Your task to perform on an android device: remove spam from my inbox in the gmail app Image 0: 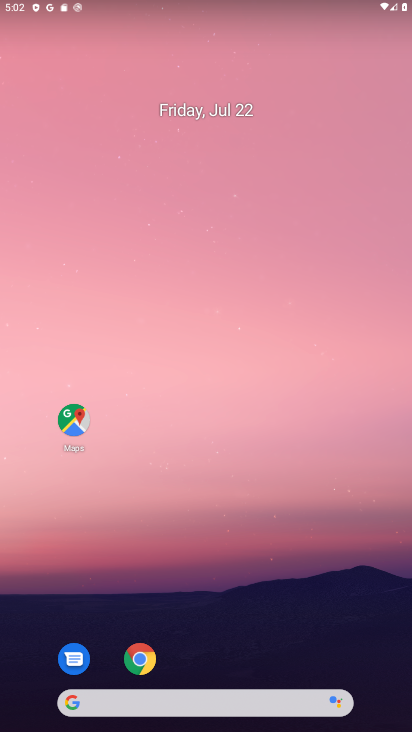
Step 0: press home button
Your task to perform on an android device: remove spam from my inbox in the gmail app Image 1: 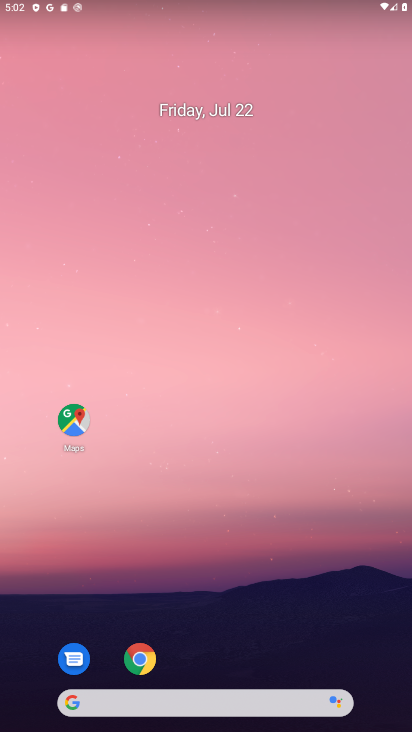
Step 1: drag from (216, 670) to (227, 26)
Your task to perform on an android device: remove spam from my inbox in the gmail app Image 2: 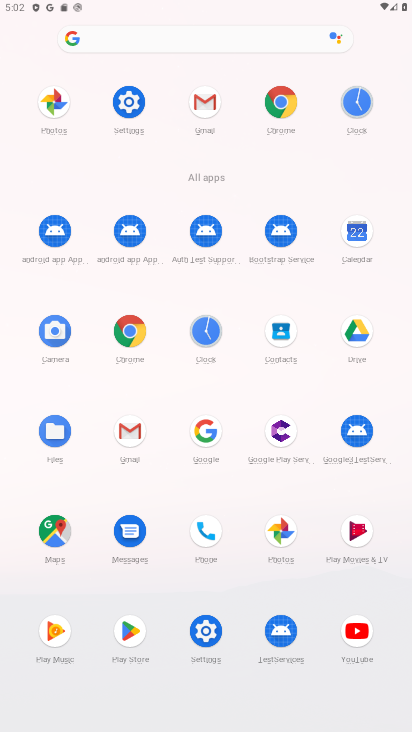
Step 2: click (206, 96)
Your task to perform on an android device: remove spam from my inbox in the gmail app Image 3: 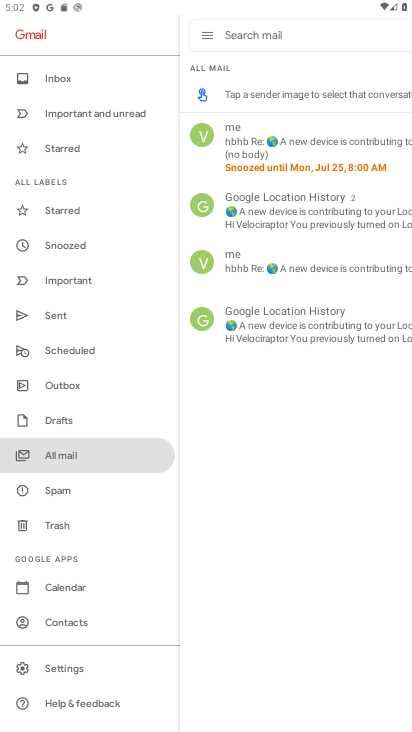
Step 3: click (64, 485)
Your task to perform on an android device: remove spam from my inbox in the gmail app Image 4: 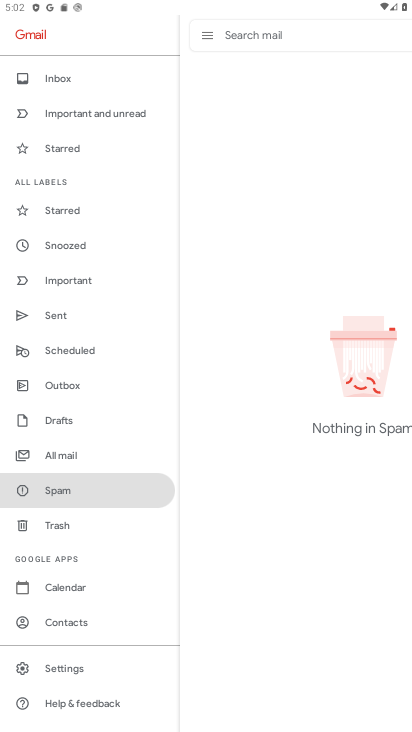
Step 4: task complete